Your task to perform on an android device: Open calendar and show me the first week of next month Image 0: 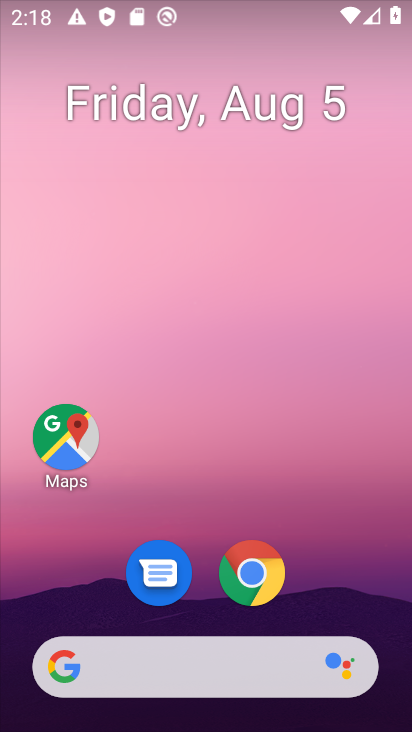
Step 0: drag from (367, 631) to (276, 108)
Your task to perform on an android device: Open calendar and show me the first week of next month Image 1: 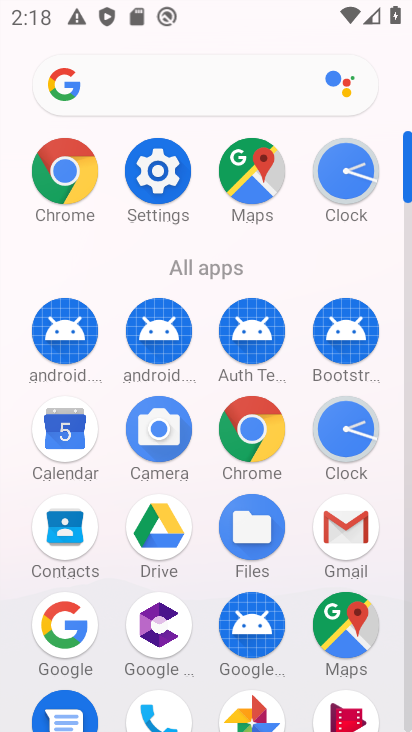
Step 1: click (79, 448)
Your task to perform on an android device: Open calendar and show me the first week of next month Image 2: 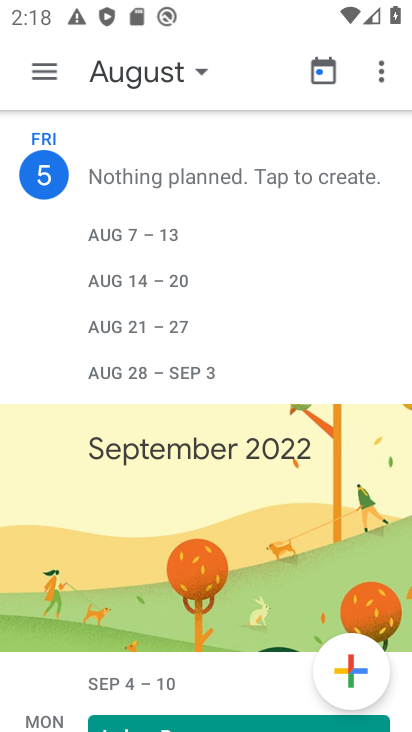
Step 2: click (51, 83)
Your task to perform on an android device: Open calendar and show me the first week of next month Image 3: 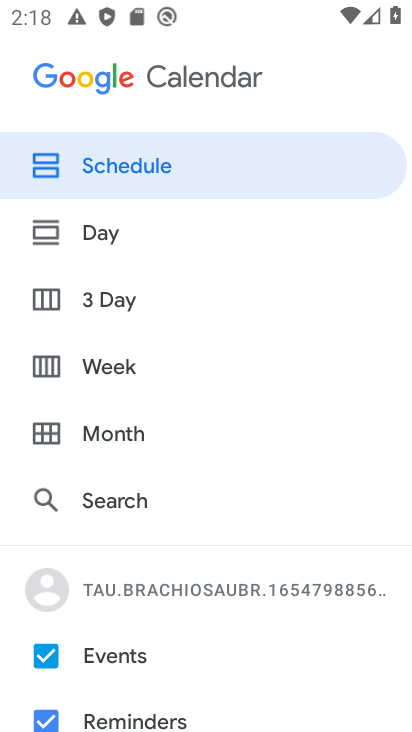
Step 3: click (156, 360)
Your task to perform on an android device: Open calendar and show me the first week of next month Image 4: 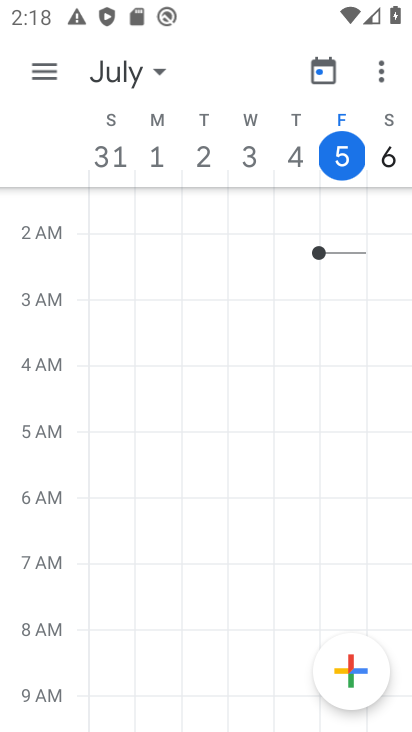
Step 4: click (141, 79)
Your task to perform on an android device: Open calendar and show me the first week of next month Image 5: 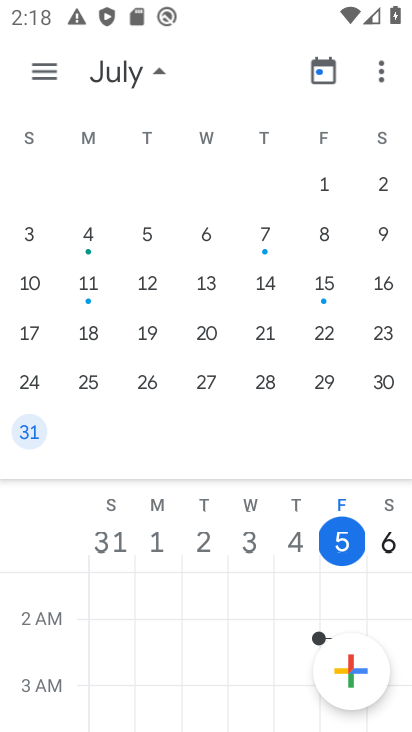
Step 5: drag from (398, 307) to (21, 344)
Your task to perform on an android device: Open calendar and show me the first week of next month Image 6: 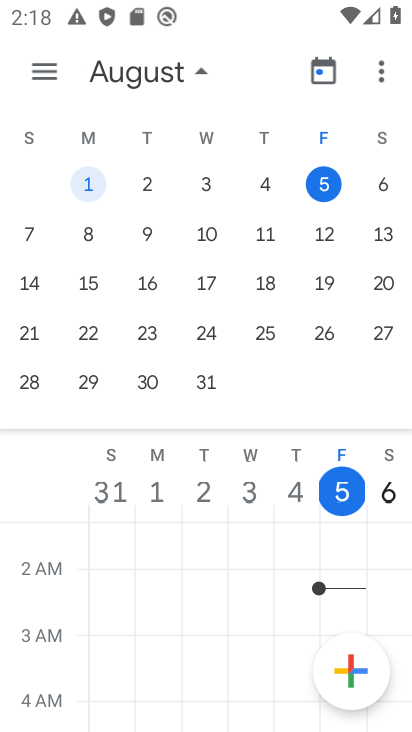
Step 6: drag from (388, 258) to (10, 243)
Your task to perform on an android device: Open calendar and show me the first week of next month Image 7: 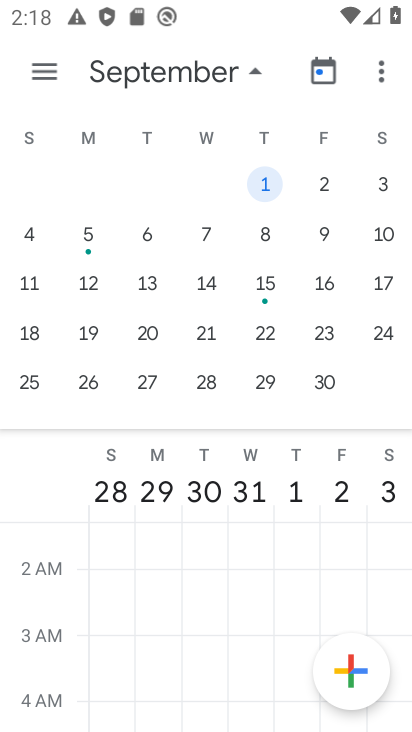
Step 7: click (268, 227)
Your task to perform on an android device: Open calendar and show me the first week of next month Image 8: 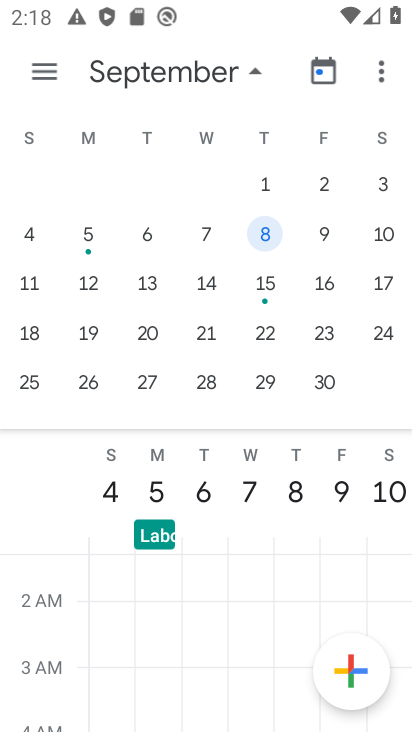
Step 8: task complete